Your task to perform on an android device: change text size in settings app Image 0: 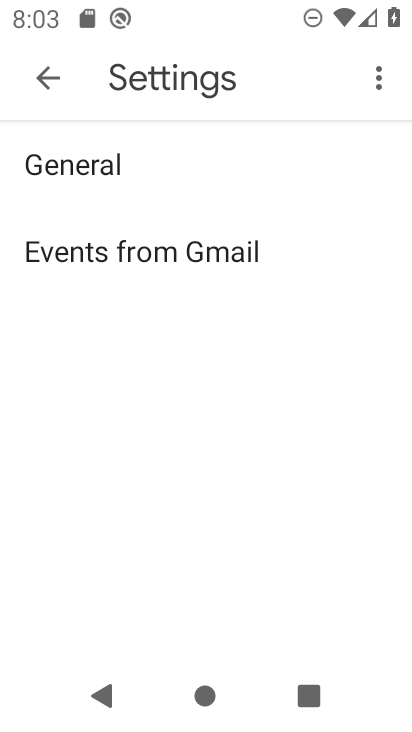
Step 0: press home button
Your task to perform on an android device: change text size in settings app Image 1: 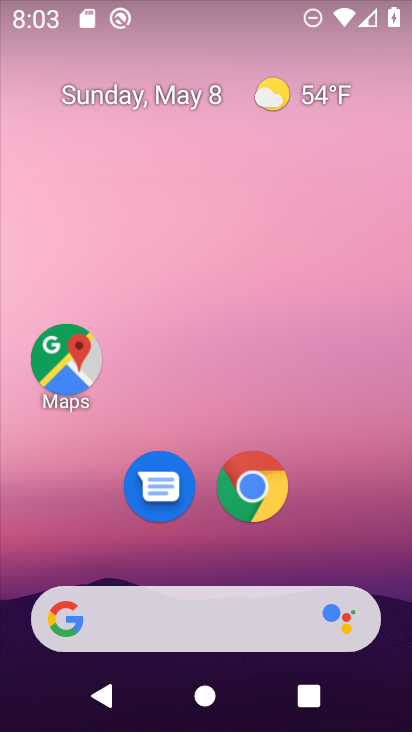
Step 1: drag from (203, 559) to (235, 224)
Your task to perform on an android device: change text size in settings app Image 2: 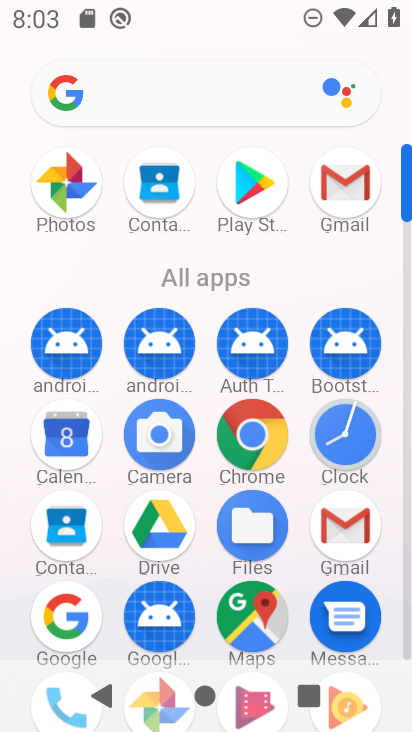
Step 2: drag from (206, 645) to (190, 384)
Your task to perform on an android device: change text size in settings app Image 3: 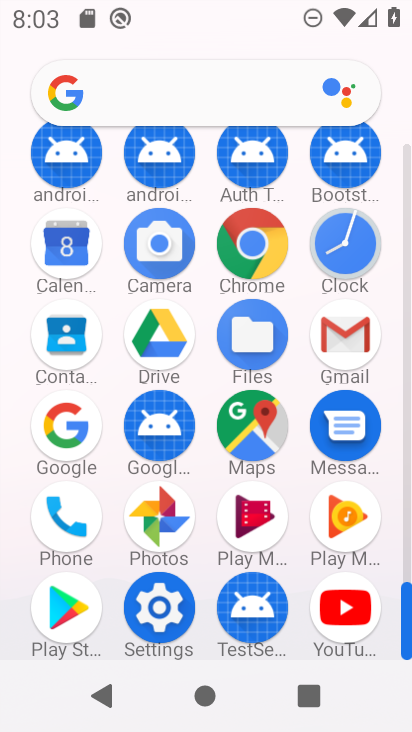
Step 3: click (163, 612)
Your task to perform on an android device: change text size in settings app Image 4: 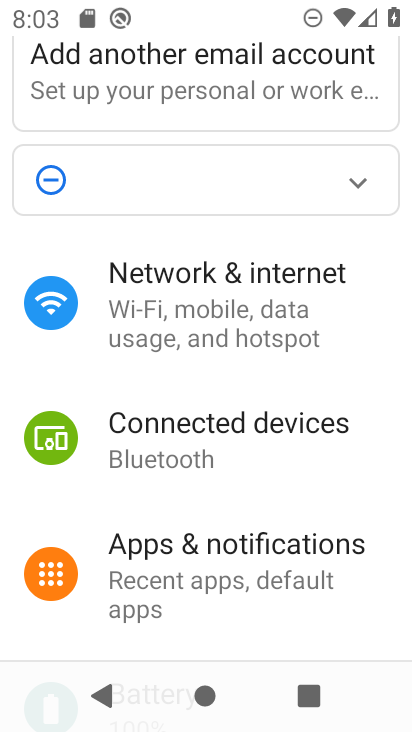
Step 4: drag from (294, 632) to (287, 374)
Your task to perform on an android device: change text size in settings app Image 5: 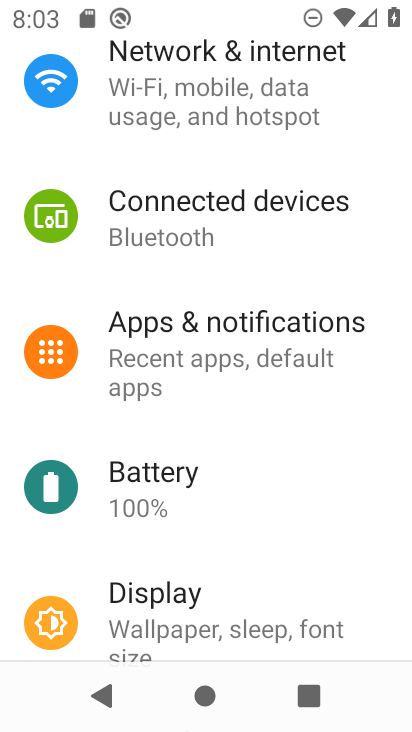
Step 5: drag from (264, 652) to (277, 457)
Your task to perform on an android device: change text size in settings app Image 6: 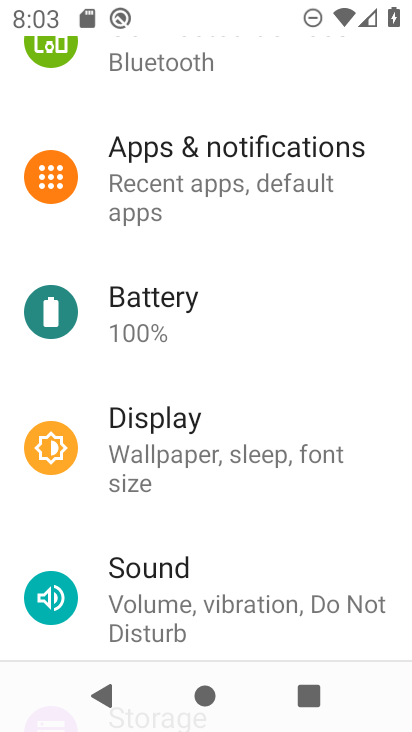
Step 6: click (203, 490)
Your task to perform on an android device: change text size in settings app Image 7: 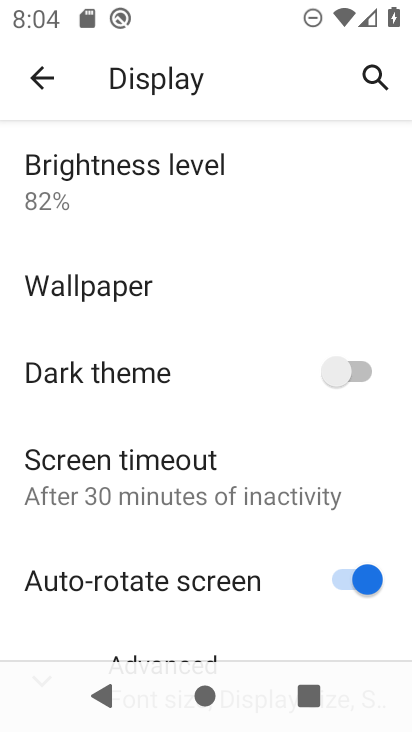
Step 7: drag from (190, 502) to (212, 195)
Your task to perform on an android device: change text size in settings app Image 8: 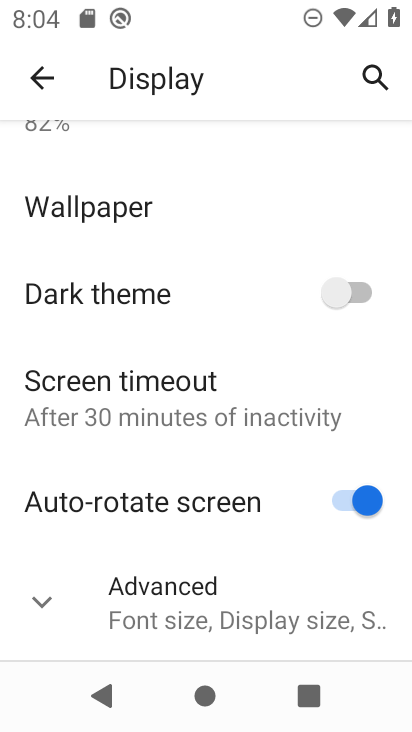
Step 8: click (45, 602)
Your task to perform on an android device: change text size in settings app Image 9: 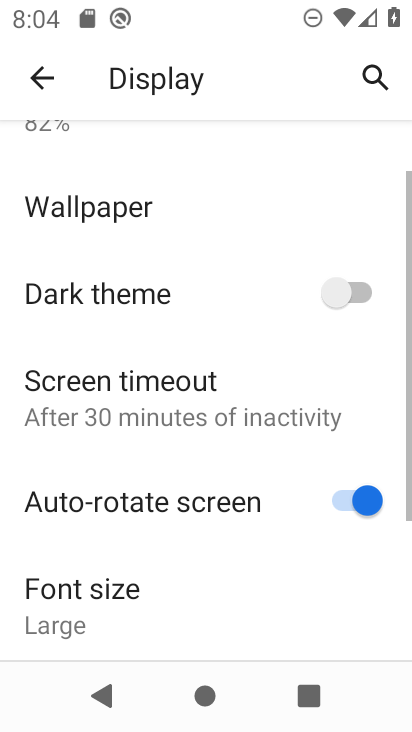
Step 9: drag from (165, 607) to (170, 326)
Your task to perform on an android device: change text size in settings app Image 10: 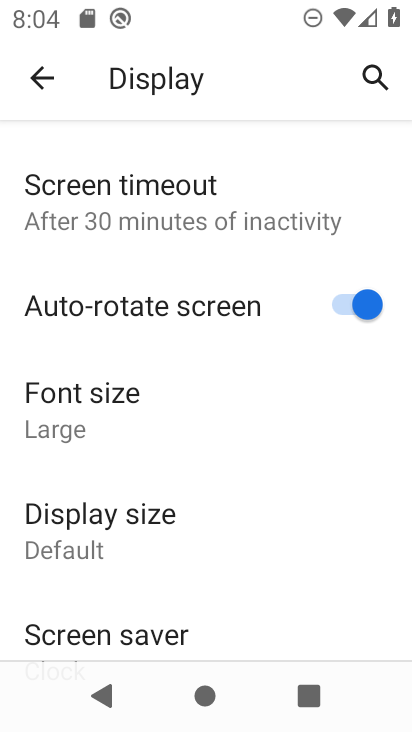
Step 10: click (94, 403)
Your task to perform on an android device: change text size in settings app Image 11: 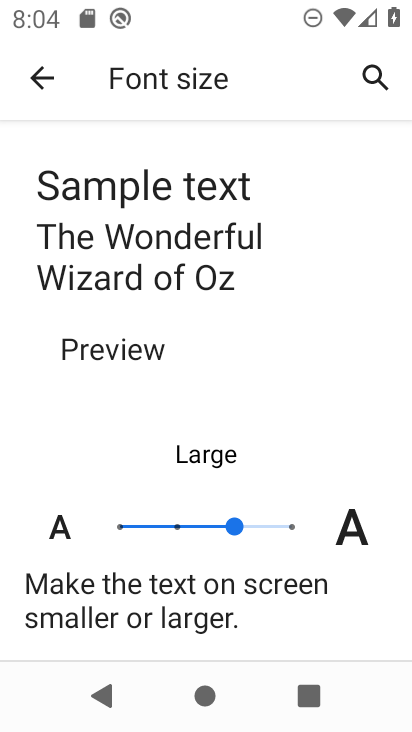
Step 11: click (219, 528)
Your task to perform on an android device: change text size in settings app Image 12: 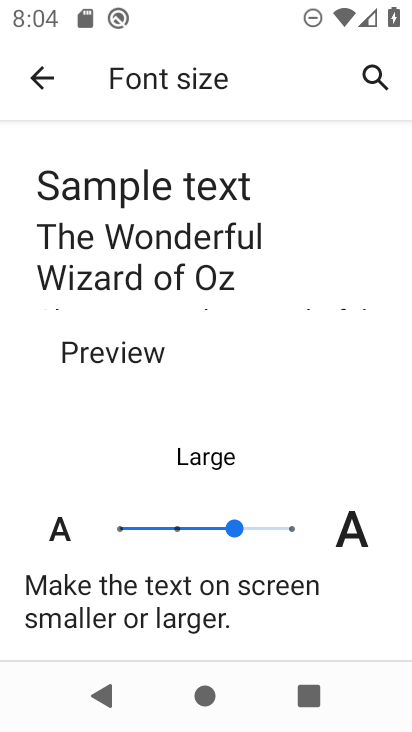
Step 12: task complete